Your task to perform on an android device: Open settings on Google Maps Image 0: 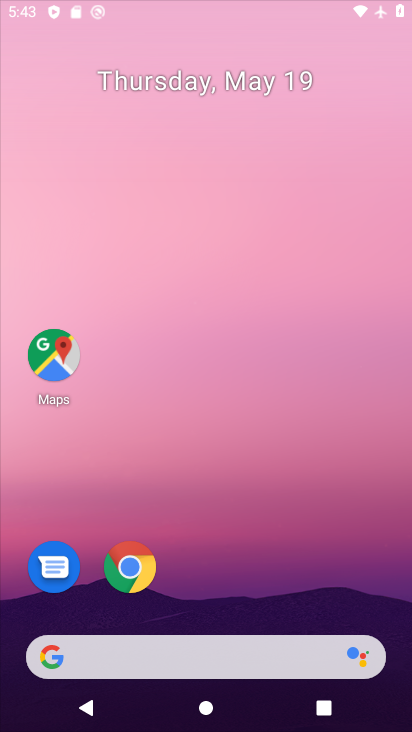
Step 0: drag from (332, 624) to (179, 133)
Your task to perform on an android device: Open settings on Google Maps Image 1: 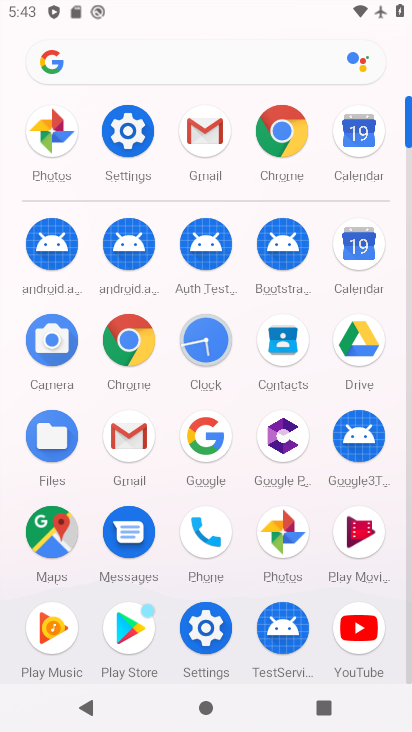
Step 1: click (52, 531)
Your task to perform on an android device: Open settings on Google Maps Image 2: 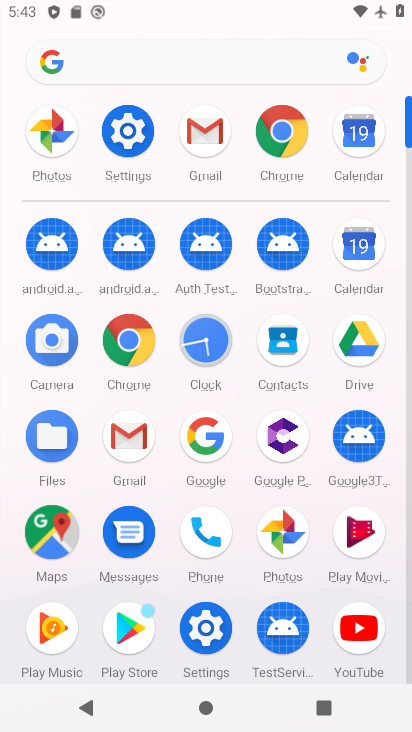
Step 2: click (53, 530)
Your task to perform on an android device: Open settings on Google Maps Image 3: 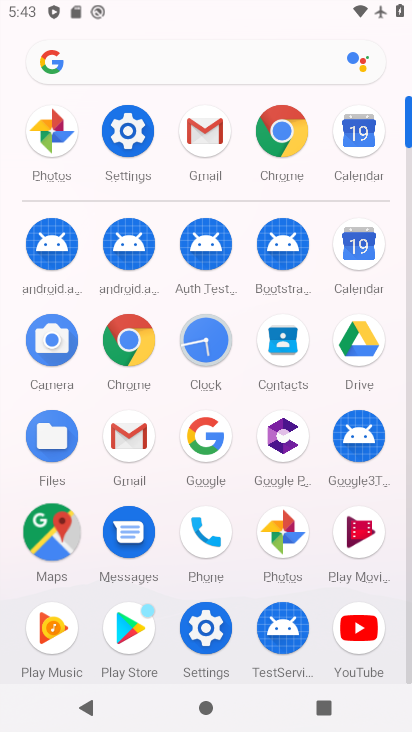
Step 3: click (53, 530)
Your task to perform on an android device: Open settings on Google Maps Image 4: 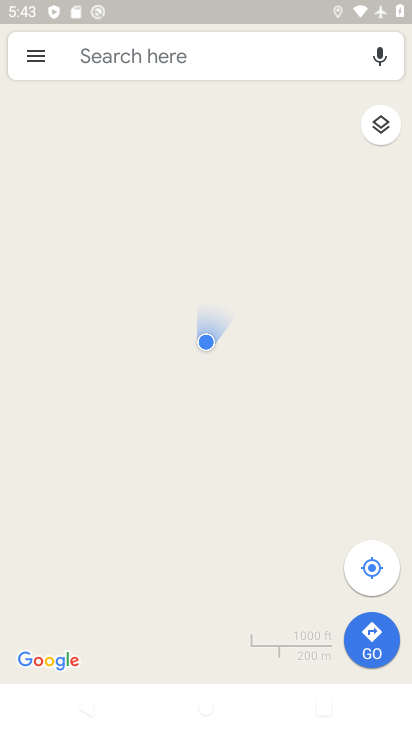
Step 4: task complete